Your task to perform on an android device: set an alarm Image 0: 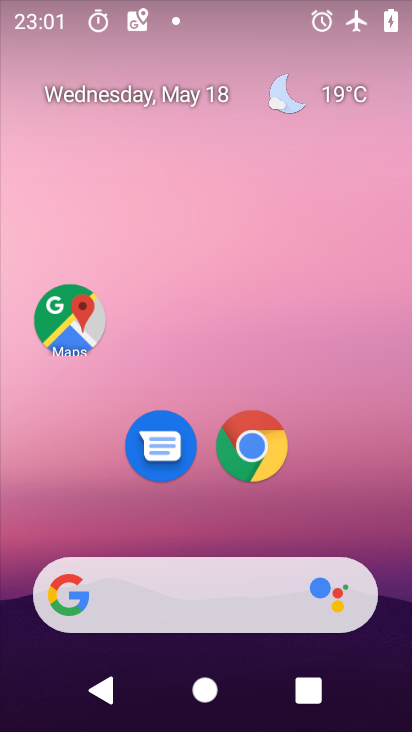
Step 0: press home button
Your task to perform on an android device: set an alarm Image 1: 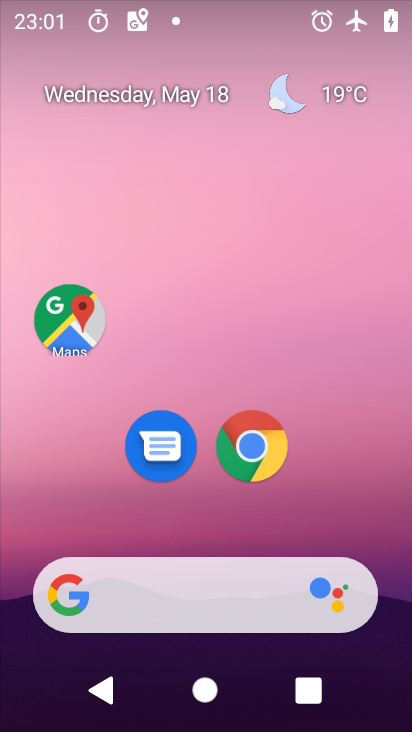
Step 1: drag from (190, 607) to (308, 160)
Your task to perform on an android device: set an alarm Image 2: 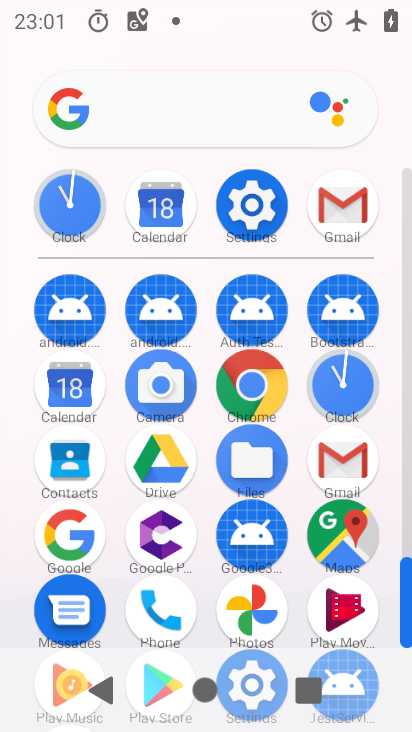
Step 2: click (334, 390)
Your task to perform on an android device: set an alarm Image 3: 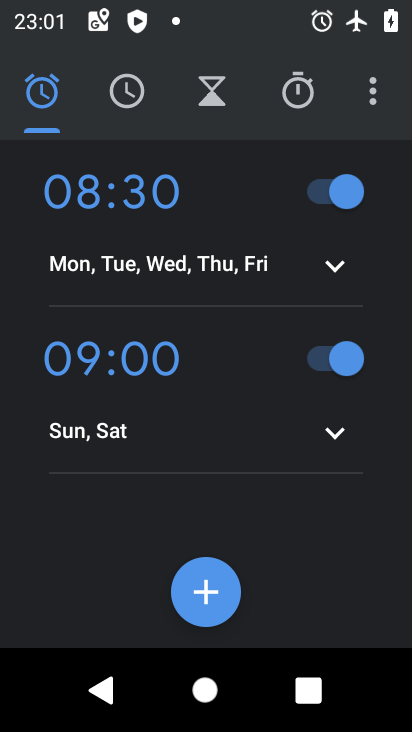
Step 3: task complete